Your task to perform on an android device: turn on wifi Image 0: 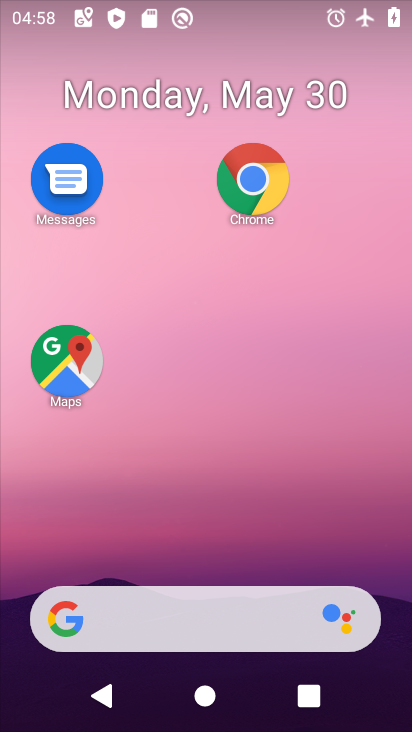
Step 0: drag from (237, 545) to (225, 153)
Your task to perform on an android device: turn on wifi Image 1: 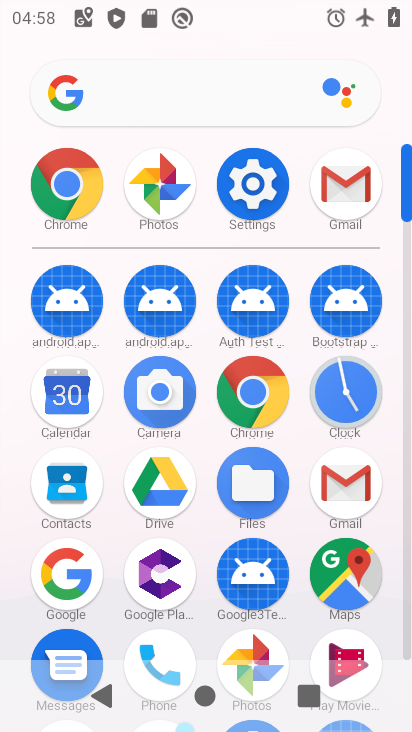
Step 1: click (256, 209)
Your task to perform on an android device: turn on wifi Image 2: 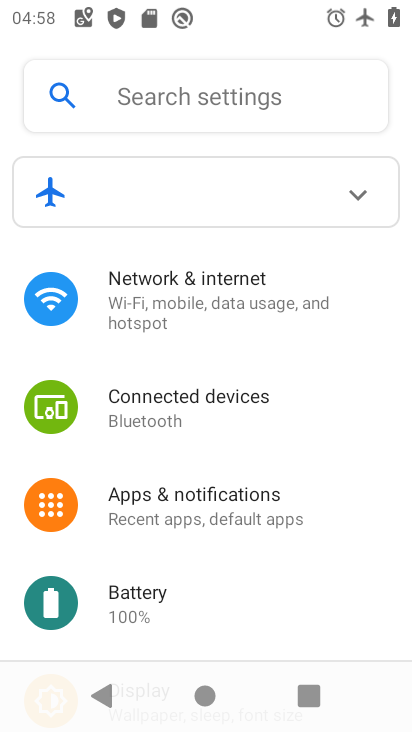
Step 2: click (147, 300)
Your task to perform on an android device: turn on wifi Image 3: 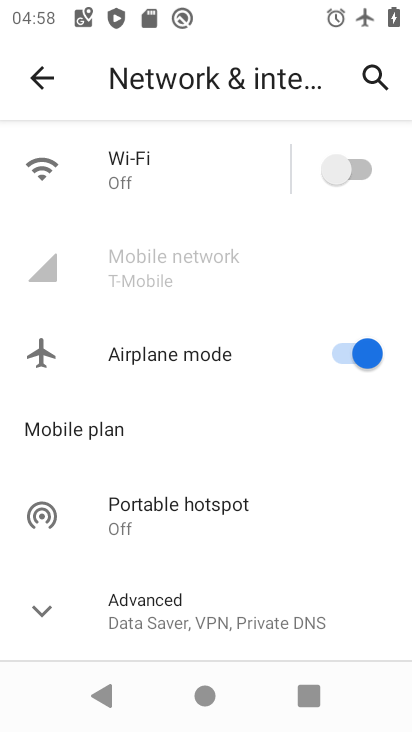
Step 3: task complete